Your task to perform on an android device: set the stopwatch Image 0: 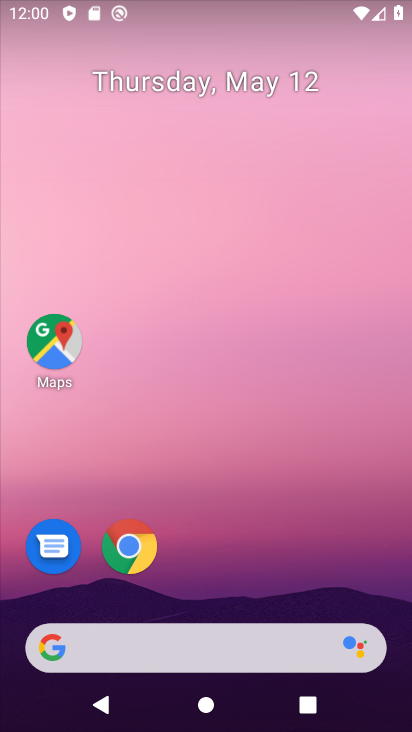
Step 0: drag from (173, 622) to (257, 112)
Your task to perform on an android device: set the stopwatch Image 1: 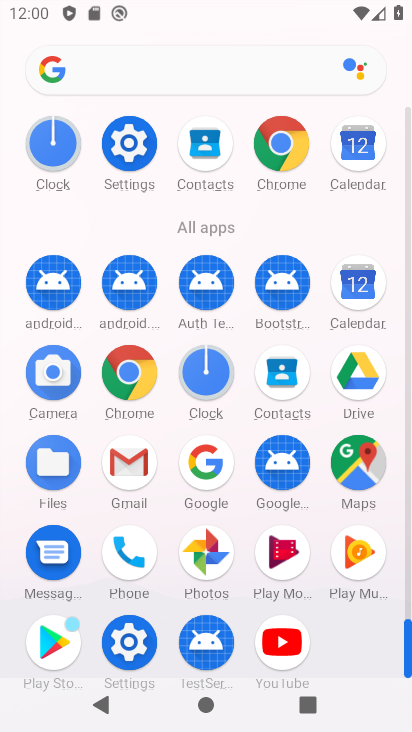
Step 1: click (222, 391)
Your task to perform on an android device: set the stopwatch Image 2: 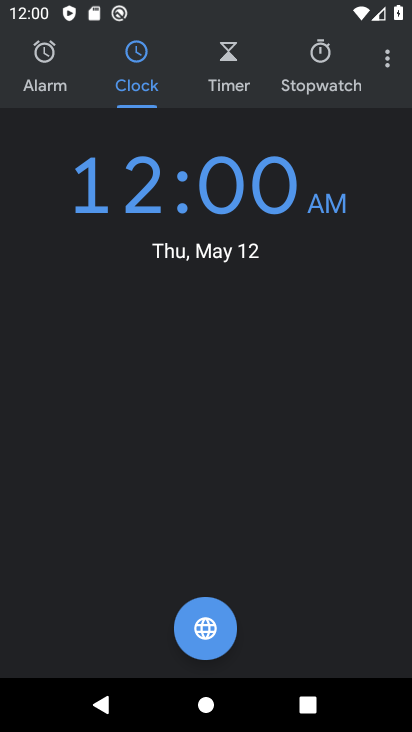
Step 2: click (301, 62)
Your task to perform on an android device: set the stopwatch Image 3: 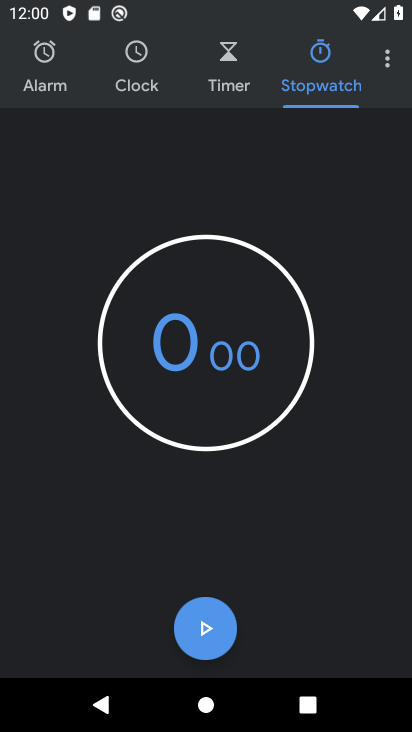
Step 3: click (204, 643)
Your task to perform on an android device: set the stopwatch Image 4: 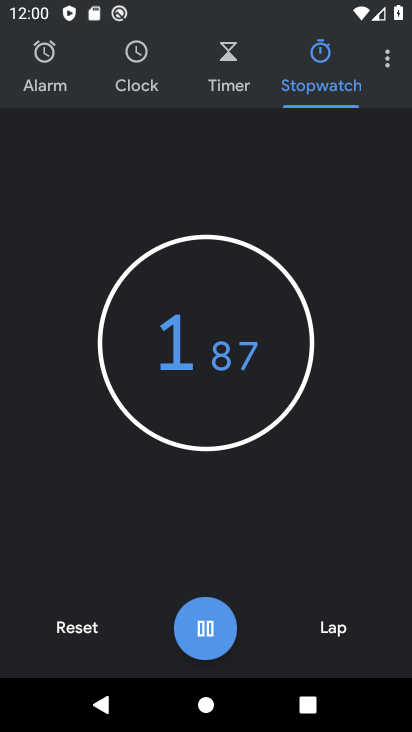
Step 4: task complete